Your task to perform on an android device: toggle notifications settings in the gmail app Image 0: 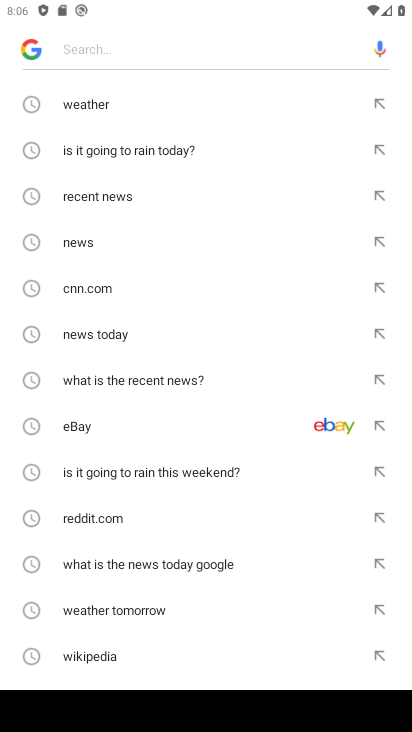
Step 0: press home button
Your task to perform on an android device: toggle notifications settings in the gmail app Image 1: 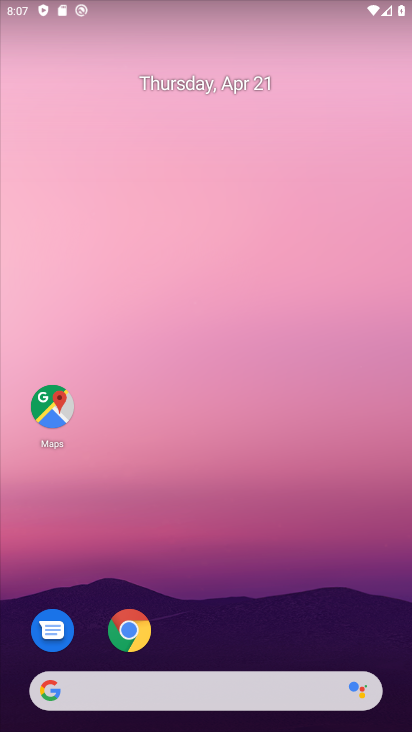
Step 1: drag from (182, 627) to (333, 7)
Your task to perform on an android device: toggle notifications settings in the gmail app Image 2: 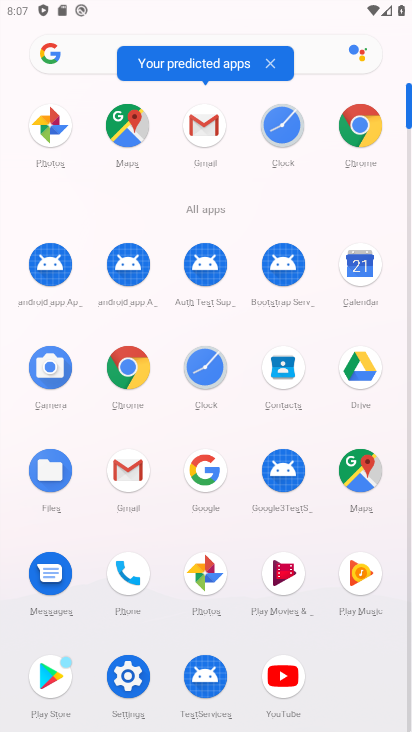
Step 2: click (142, 474)
Your task to perform on an android device: toggle notifications settings in the gmail app Image 3: 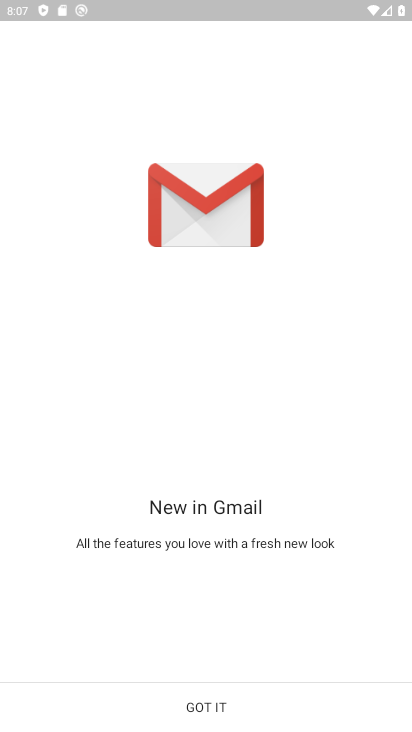
Step 3: click (241, 696)
Your task to perform on an android device: toggle notifications settings in the gmail app Image 4: 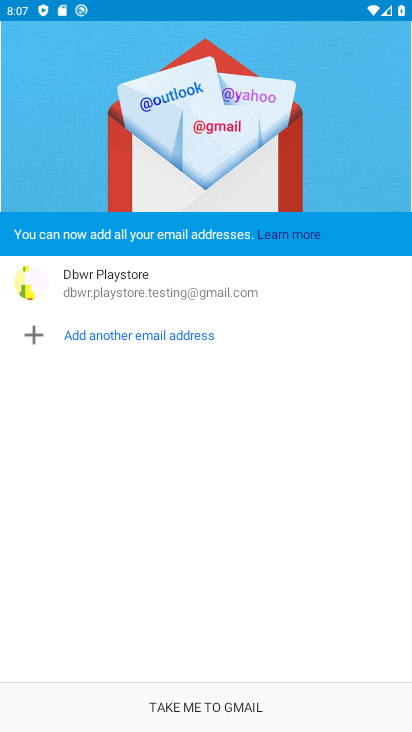
Step 4: click (237, 704)
Your task to perform on an android device: toggle notifications settings in the gmail app Image 5: 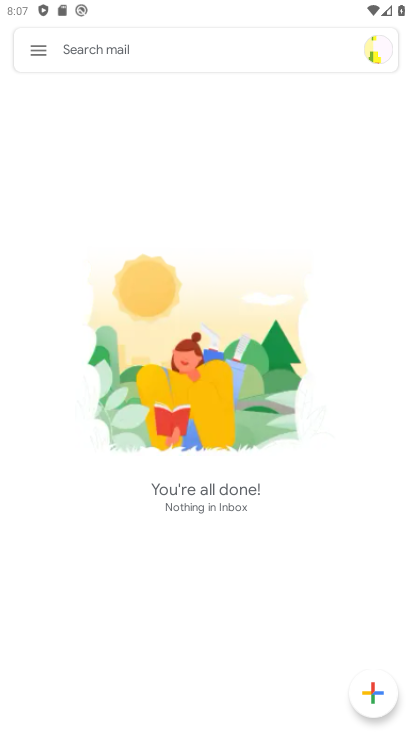
Step 5: click (34, 49)
Your task to perform on an android device: toggle notifications settings in the gmail app Image 6: 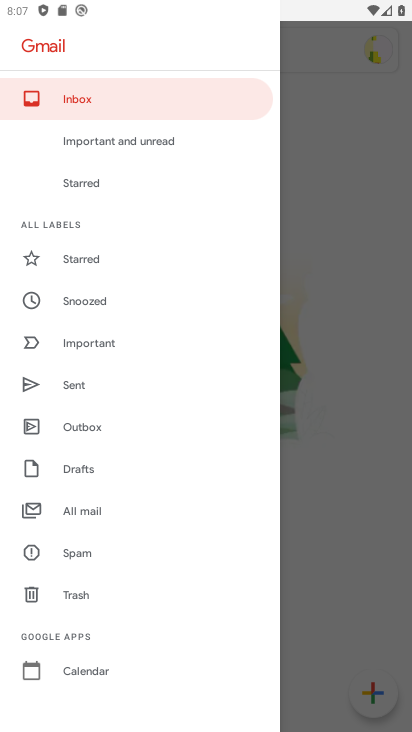
Step 6: drag from (93, 588) to (153, 191)
Your task to perform on an android device: toggle notifications settings in the gmail app Image 7: 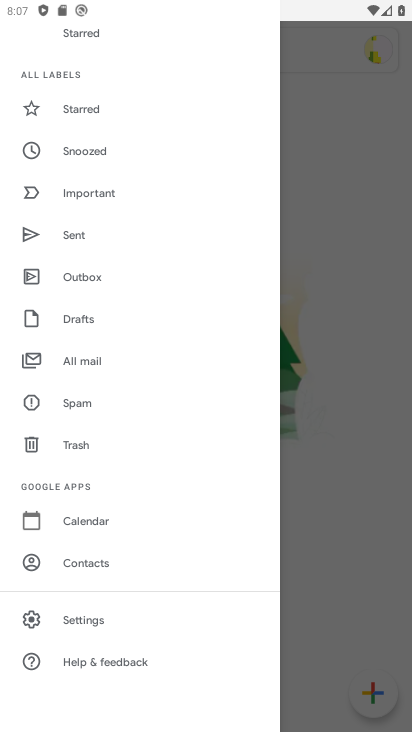
Step 7: click (72, 629)
Your task to perform on an android device: toggle notifications settings in the gmail app Image 8: 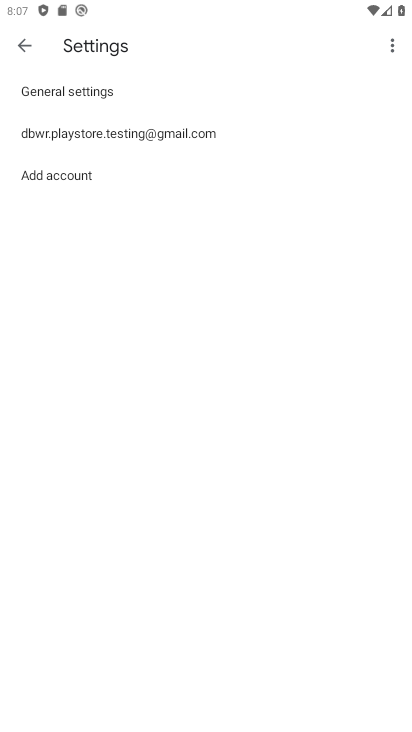
Step 8: click (87, 79)
Your task to perform on an android device: toggle notifications settings in the gmail app Image 9: 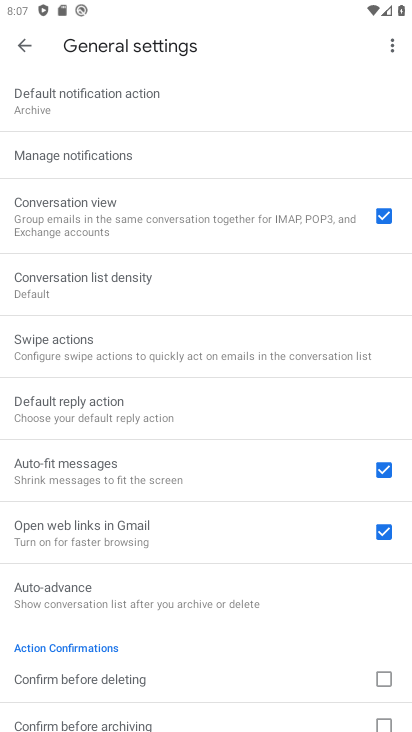
Step 9: click (72, 157)
Your task to perform on an android device: toggle notifications settings in the gmail app Image 10: 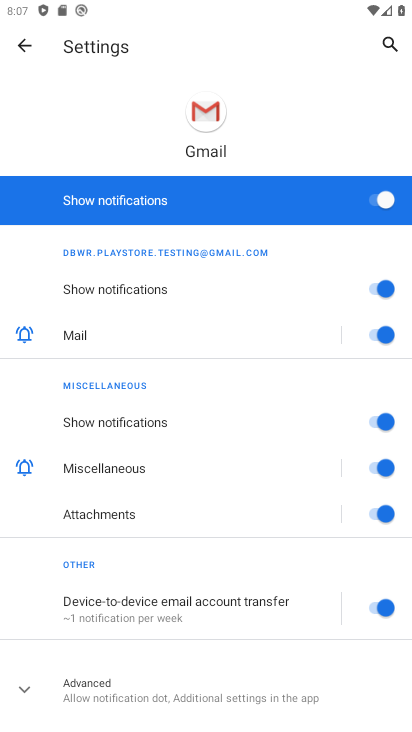
Step 10: click (358, 202)
Your task to perform on an android device: toggle notifications settings in the gmail app Image 11: 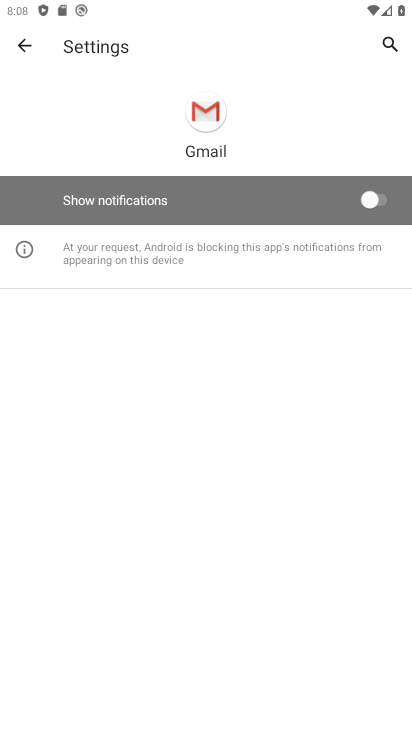
Step 11: task complete